Your task to perform on an android device: Set the phone to "Do not disturb". Image 0: 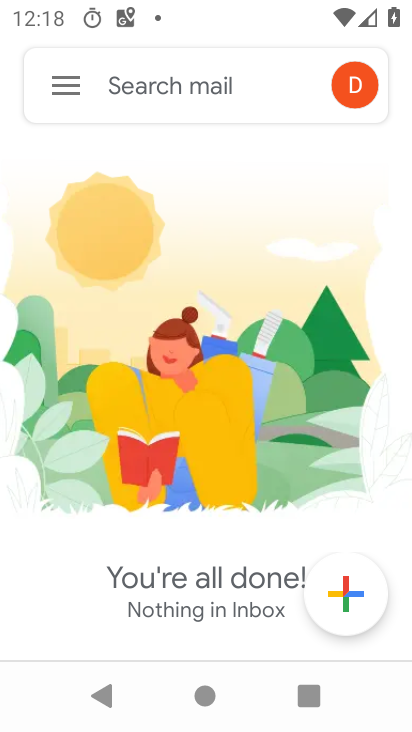
Step 0: press home button
Your task to perform on an android device: Set the phone to "Do not disturb". Image 1: 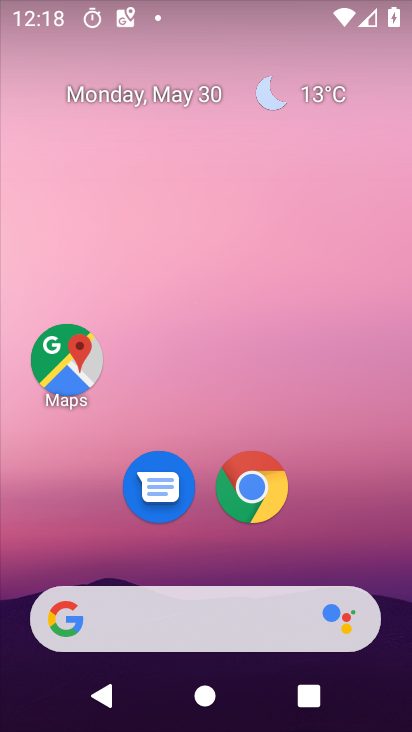
Step 1: drag from (397, 664) to (404, 162)
Your task to perform on an android device: Set the phone to "Do not disturb". Image 2: 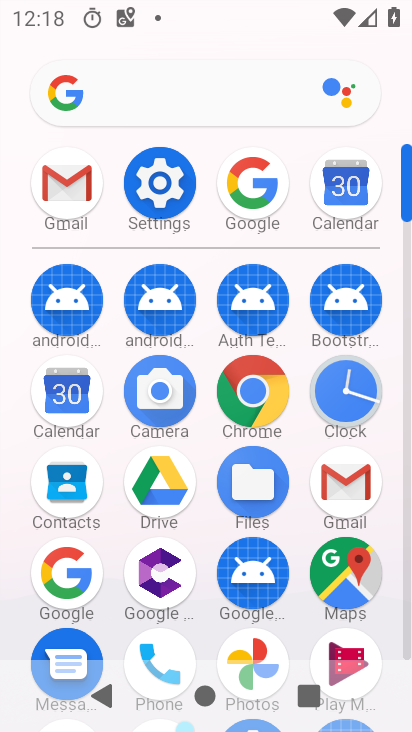
Step 2: drag from (399, 710) to (411, 207)
Your task to perform on an android device: Set the phone to "Do not disturb". Image 3: 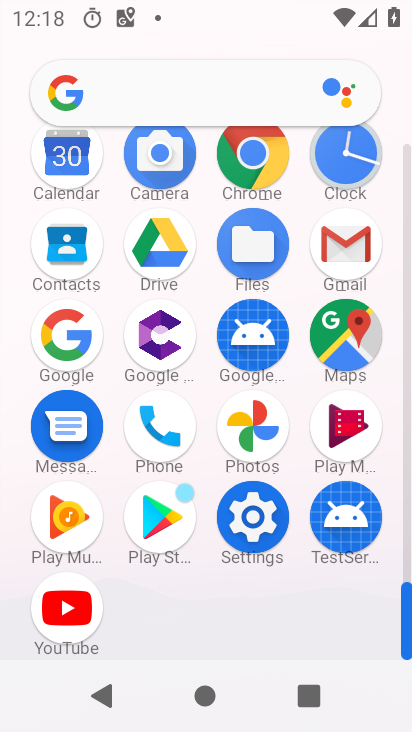
Step 3: click (244, 497)
Your task to perform on an android device: Set the phone to "Do not disturb". Image 4: 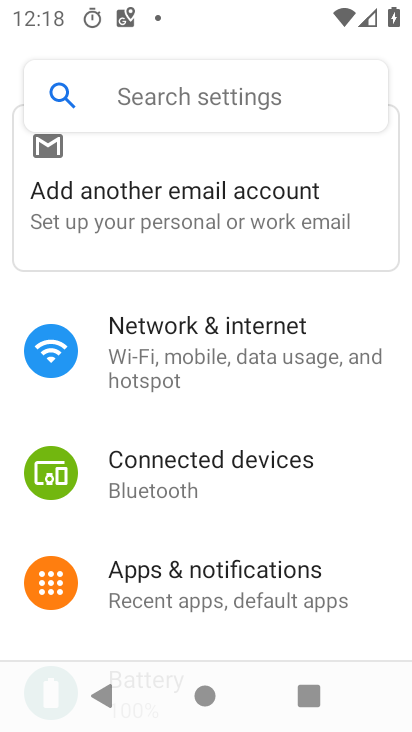
Step 4: drag from (321, 618) to (340, 249)
Your task to perform on an android device: Set the phone to "Do not disturb". Image 5: 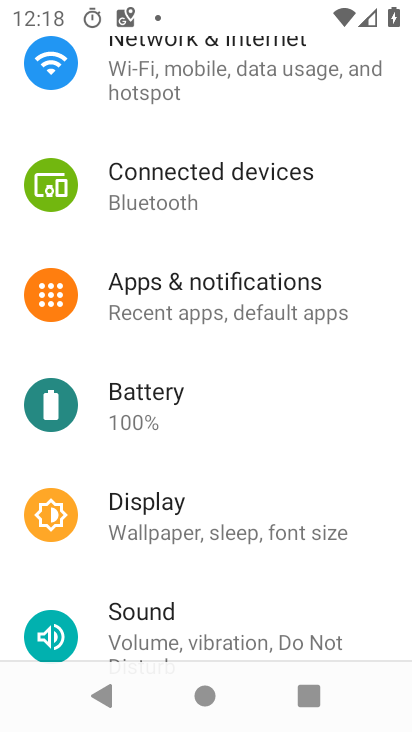
Step 5: click (143, 613)
Your task to perform on an android device: Set the phone to "Do not disturb". Image 6: 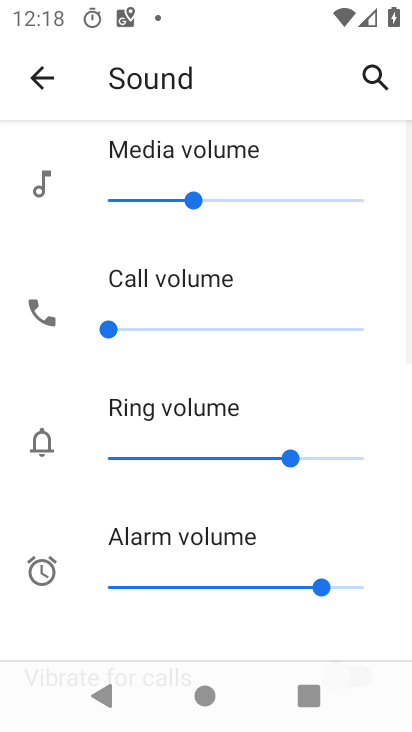
Step 6: drag from (215, 632) to (265, 214)
Your task to perform on an android device: Set the phone to "Do not disturb". Image 7: 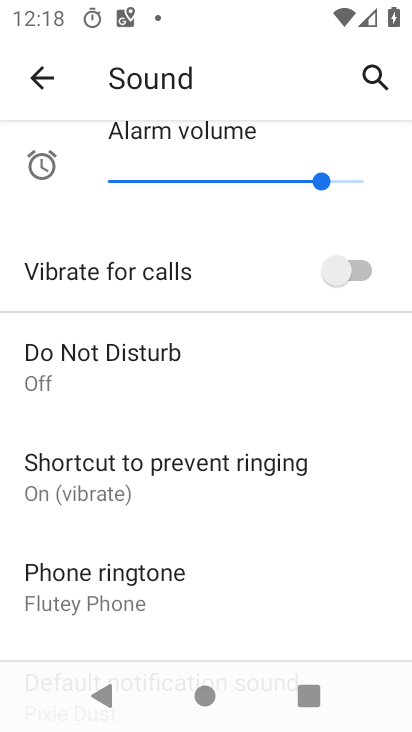
Step 7: click (109, 355)
Your task to perform on an android device: Set the phone to "Do not disturb". Image 8: 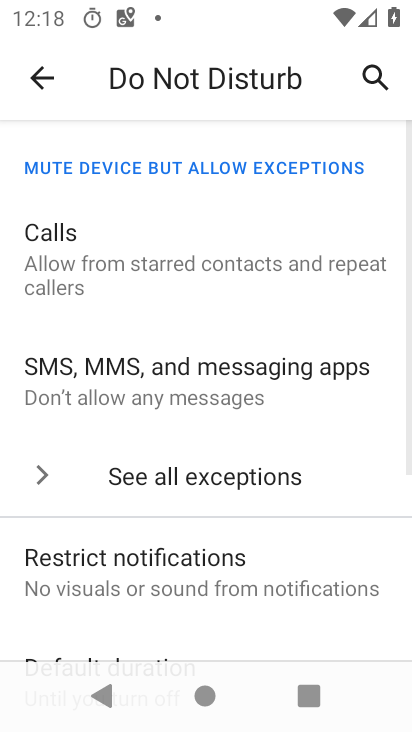
Step 8: drag from (205, 630) to (223, 255)
Your task to perform on an android device: Set the phone to "Do not disturb". Image 9: 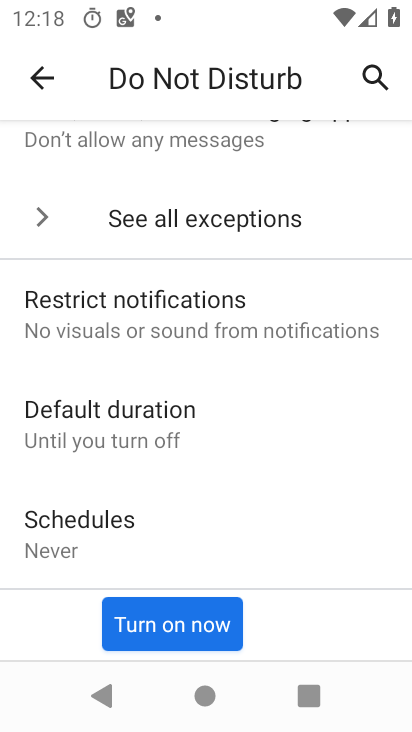
Step 9: click (167, 612)
Your task to perform on an android device: Set the phone to "Do not disturb". Image 10: 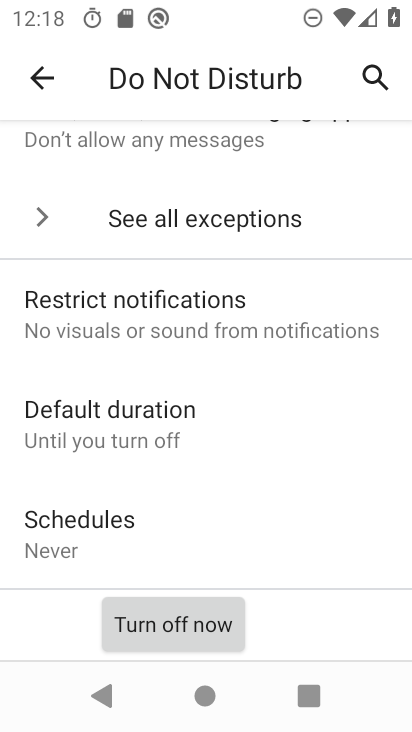
Step 10: task complete